Your task to perform on an android device: When is my next appointment? Image 0: 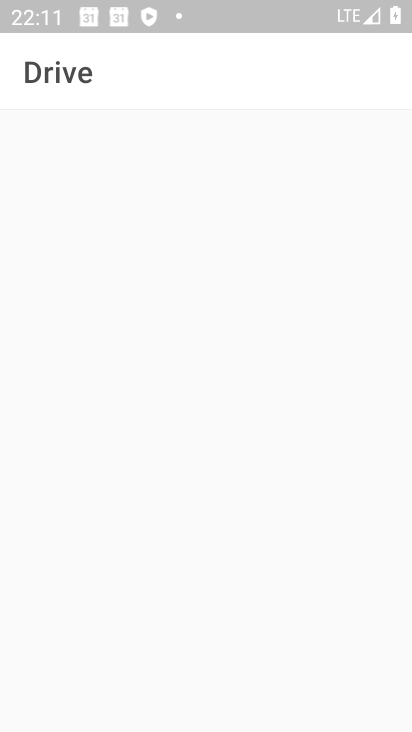
Step 0: press home button
Your task to perform on an android device: When is my next appointment? Image 1: 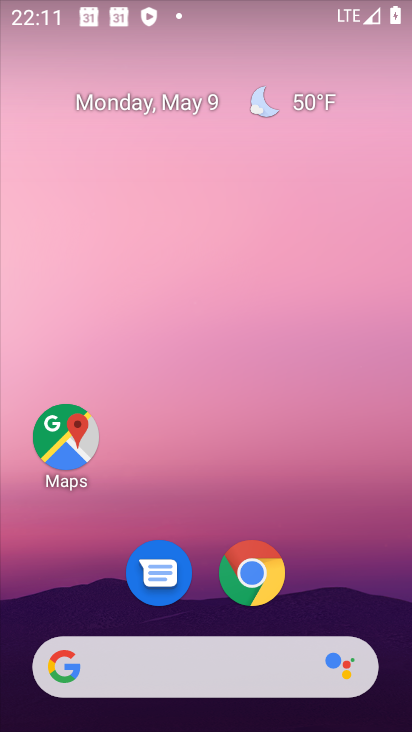
Step 1: drag from (335, 594) to (319, 131)
Your task to perform on an android device: When is my next appointment? Image 2: 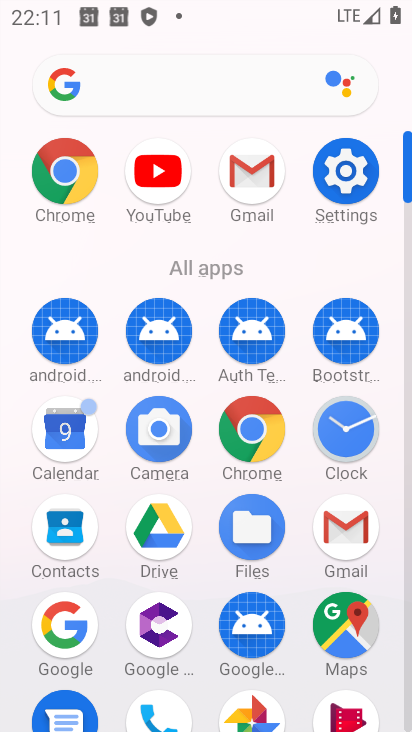
Step 2: click (62, 437)
Your task to perform on an android device: When is my next appointment? Image 3: 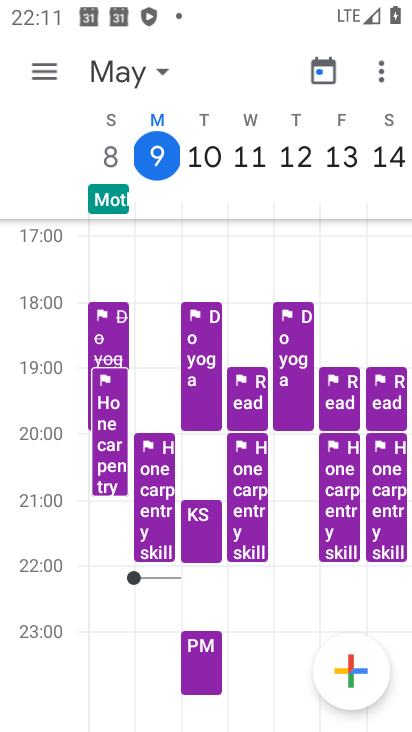
Step 3: click (41, 63)
Your task to perform on an android device: When is my next appointment? Image 4: 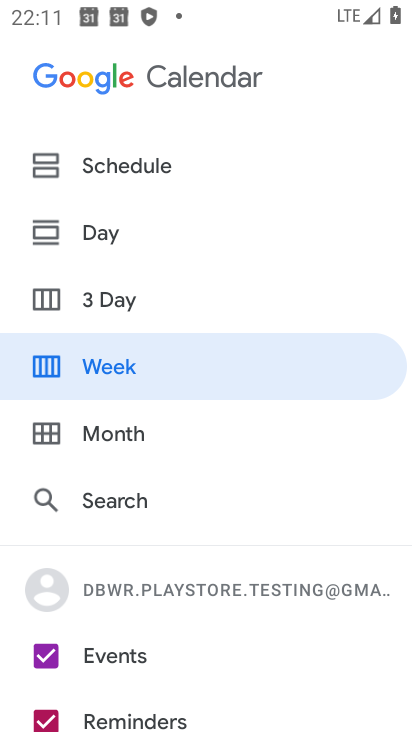
Step 4: click (87, 221)
Your task to perform on an android device: When is my next appointment? Image 5: 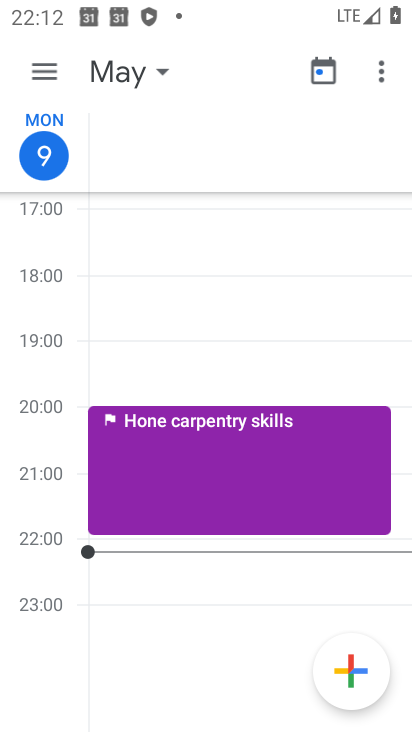
Step 5: drag from (204, 514) to (275, 131)
Your task to perform on an android device: When is my next appointment? Image 6: 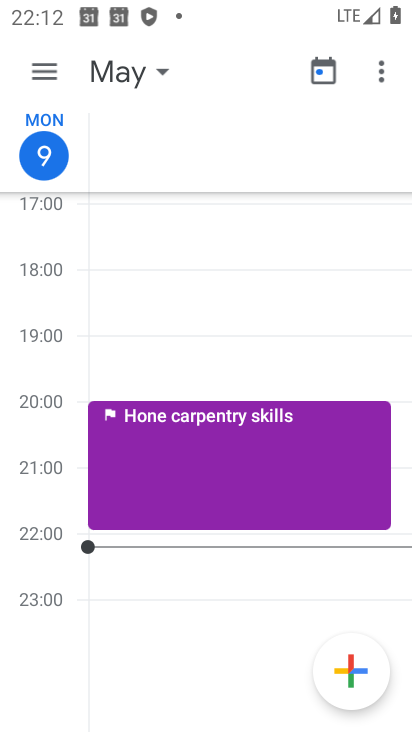
Step 6: click (116, 75)
Your task to perform on an android device: When is my next appointment? Image 7: 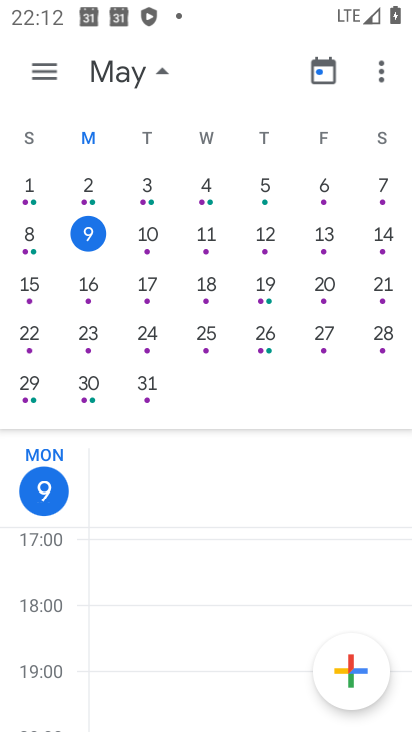
Step 7: click (146, 236)
Your task to perform on an android device: When is my next appointment? Image 8: 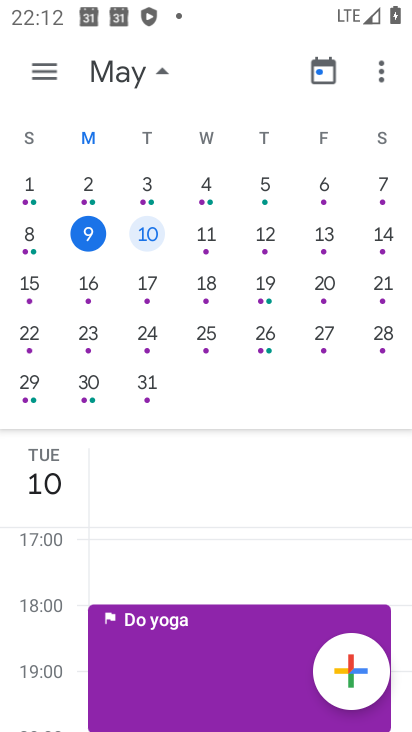
Step 8: task complete